Your task to perform on an android device: clear history in the chrome app Image 0: 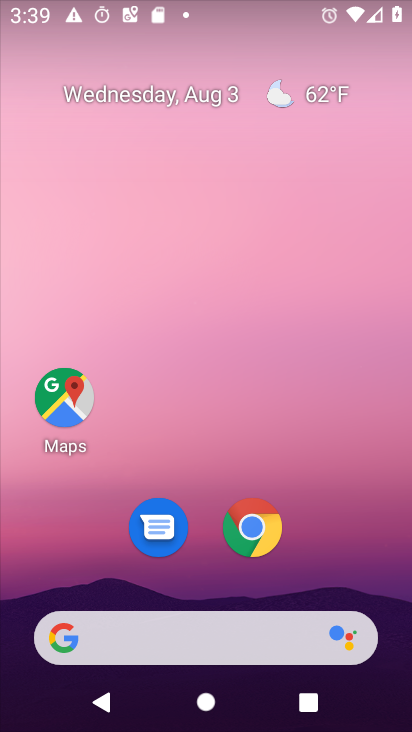
Step 0: drag from (362, 524) to (326, 26)
Your task to perform on an android device: clear history in the chrome app Image 1: 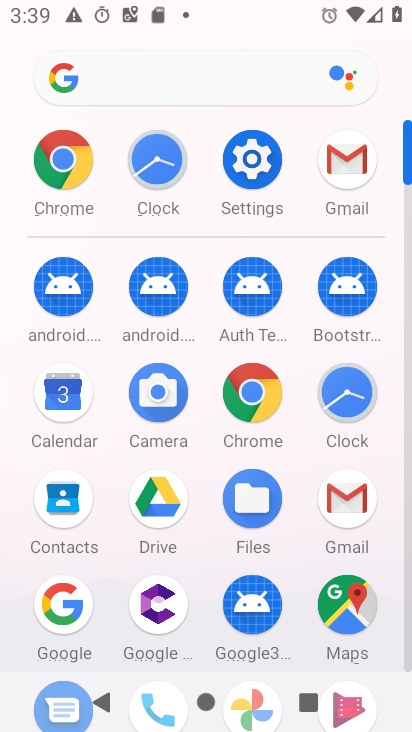
Step 1: click (240, 392)
Your task to perform on an android device: clear history in the chrome app Image 2: 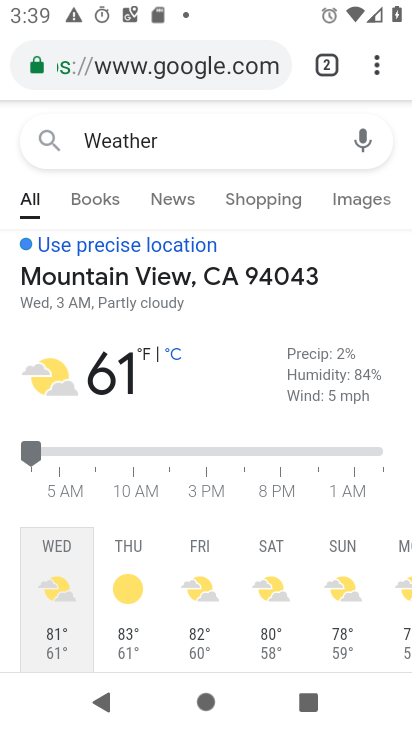
Step 2: drag from (386, 53) to (190, 377)
Your task to perform on an android device: clear history in the chrome app Image 3: 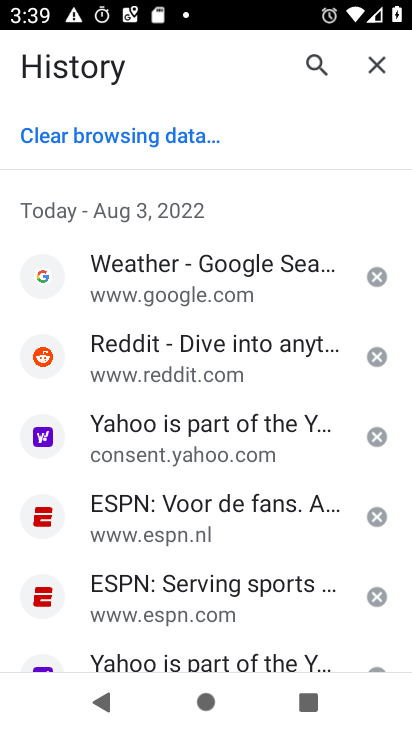
Step 3: click (176, 137)
Your task to perform on an android device: clear history in the chrome app Image 4: 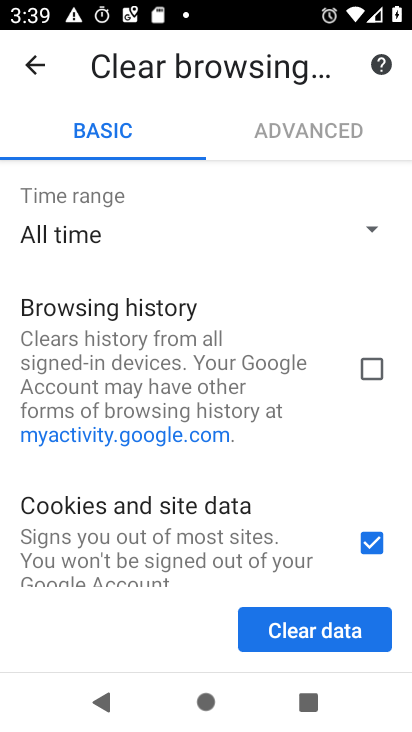
Step 4: click (368, 366)
Your task to perform on an android device: clear history in the chrome app Image 5: 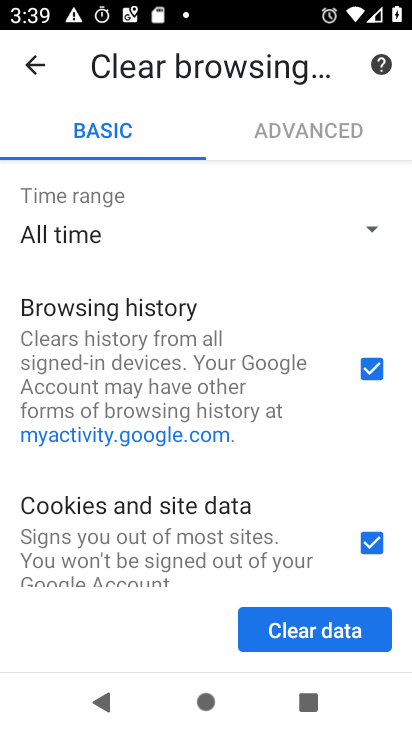
Step 5: click (311, 623)
Your task to perform on an android device: clear history in the chrome app Image 6: 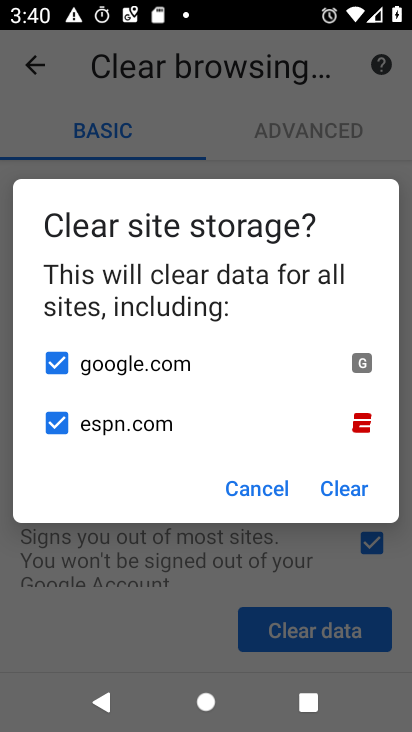
Step 6: click (348, 494)
Your task to perform on an android device: clear history in the chrome app Image 7: 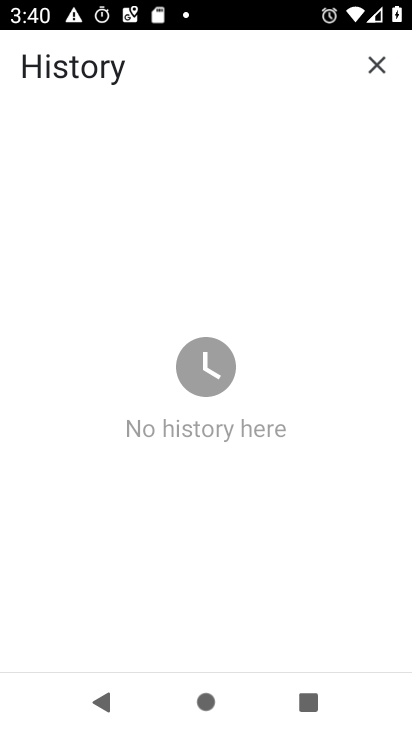
Step 7: task complete